Your task to perform on an android device: all mails in gmail Image 0: 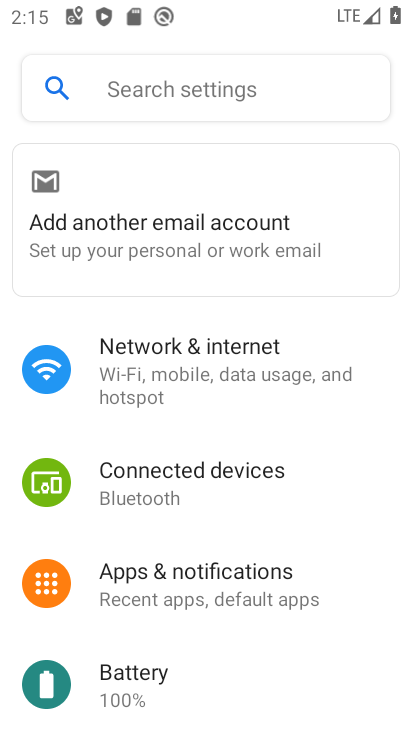
Step 0: press home button
Your task to perform on an android device: all mails in gmail Image 1: 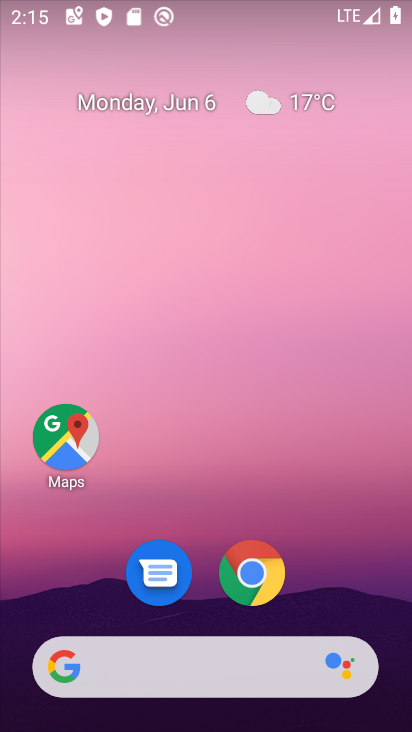
Step 1: drag from (359, 572) to (359, 187)
Your task to perform on an android device: all mails in gmail Image 2: 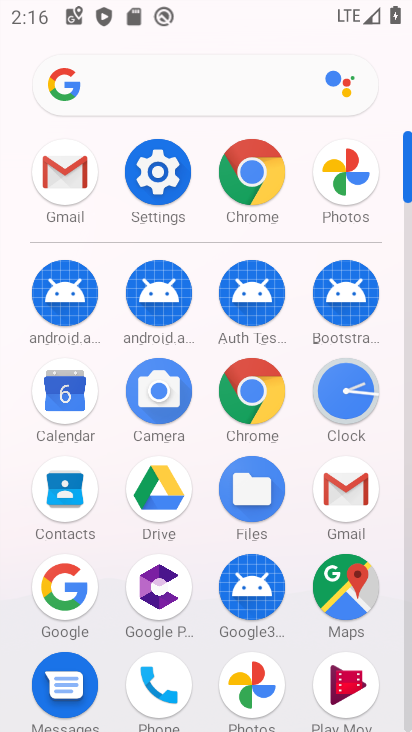
Step 2: click (361, 502)
Your task to perform on an android device: all mails in gmail Image 3: 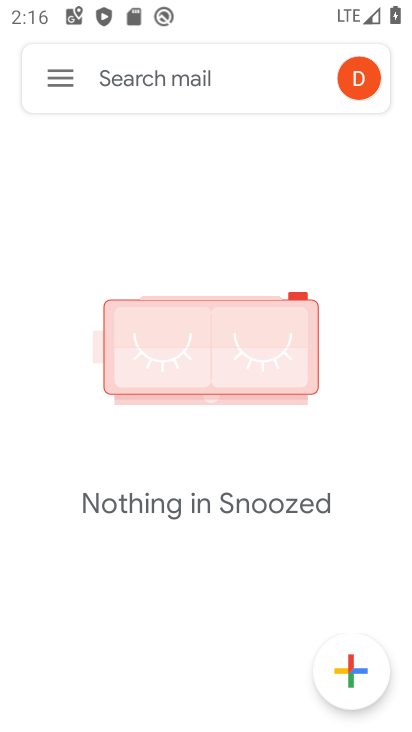
Step 3: click (67, 80)
Your task to perform on an android device: all mails in gmail Image 4: 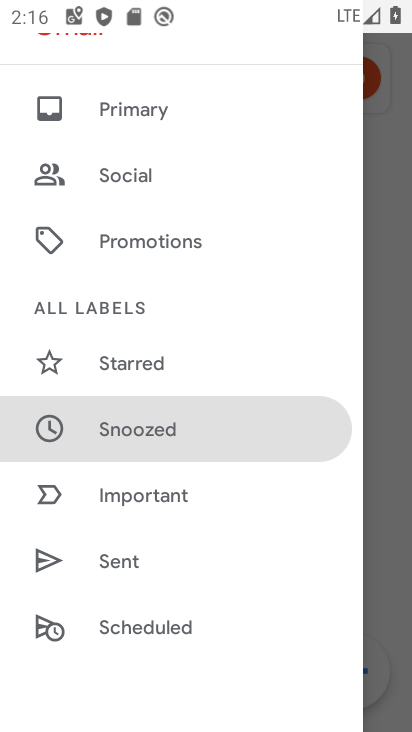
Step 4: drag from (289, 510) to (301, 326)
Your task to perform on an android device: all mails in gmail Image 5: 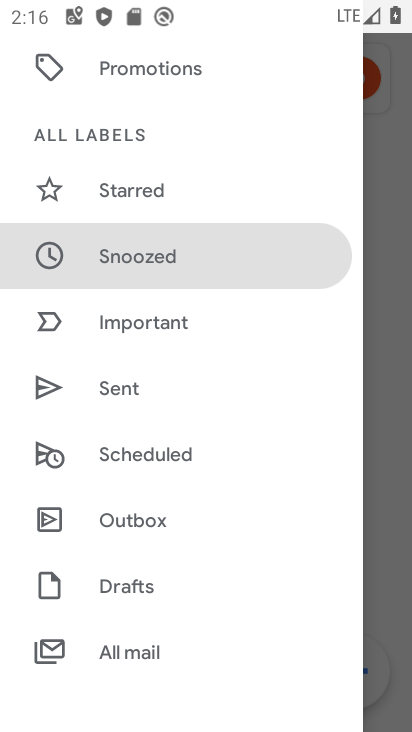
Step 5: drag from (285, 493) to (294, 333)
Your task to perform on an android device: all mails in gmail Image 6: 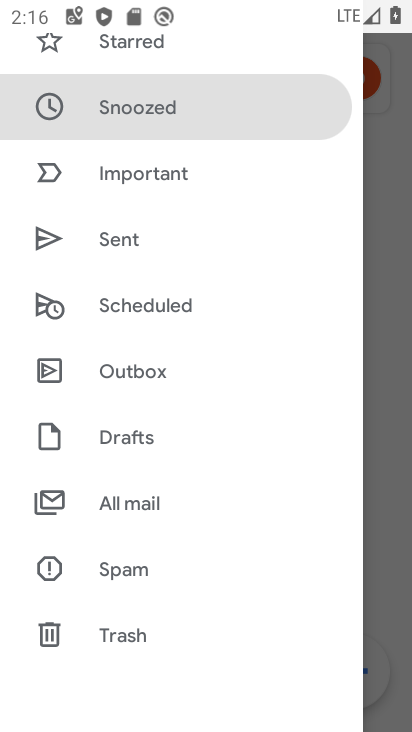
Step 6: click (149, 507)
Your task to perform on an android device: all mails in gmail Image 7: 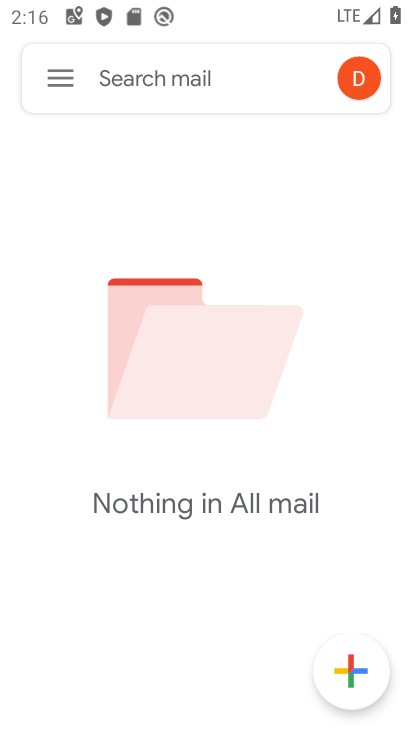
Step 7: task complete